Your task to perform on an android device: Go to Amazon Image 0: 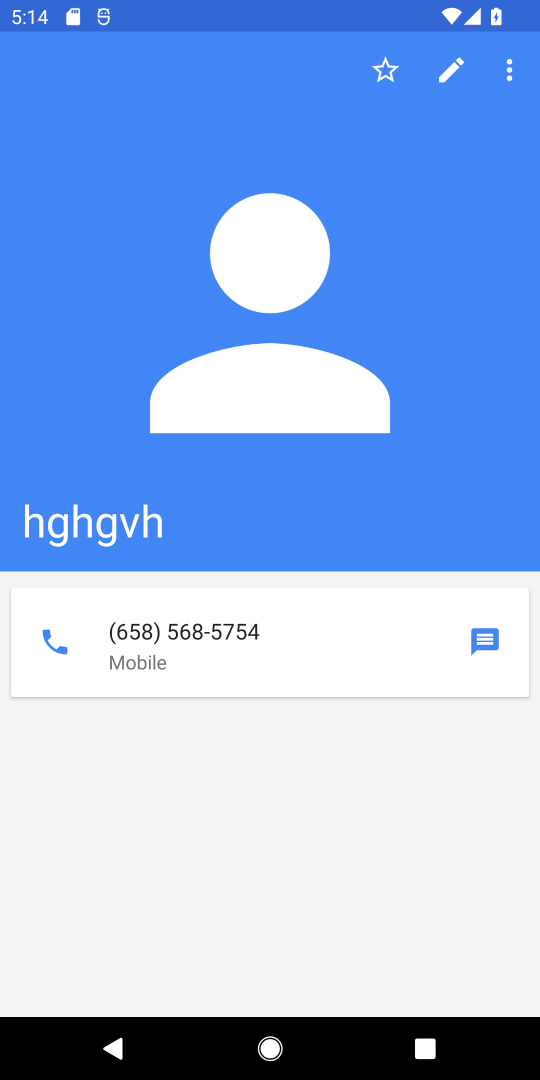
Step 0: press home button
Your task to perform on an android device: Go to Amazon Image 1: 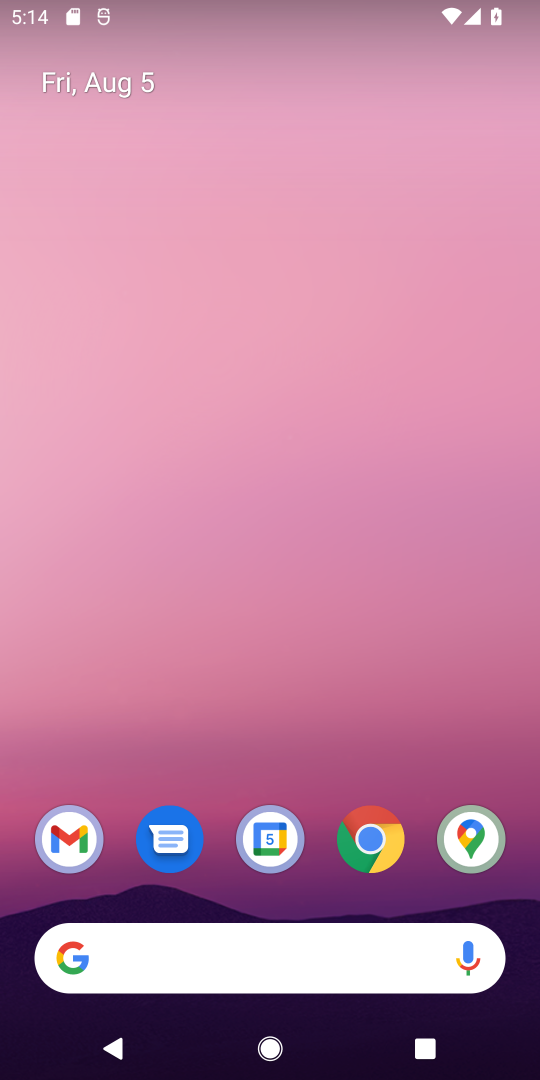
Step 1: click (350, 868)
Your task to perform on an android device: Go to Amazon Image 2: 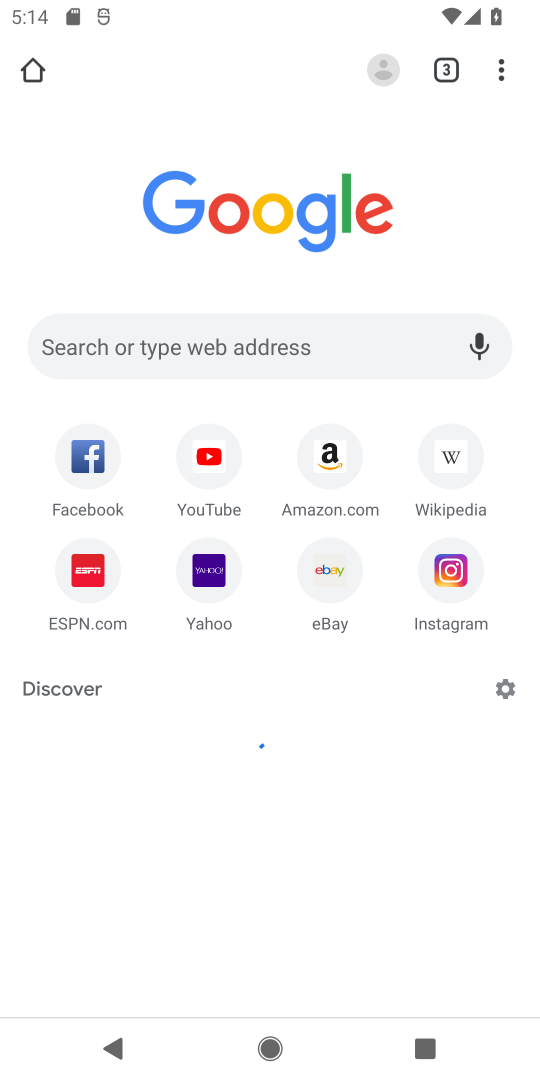
Step 2: click (355, 463)
Your task to perform on an android device: Go to Amazon Image 3: 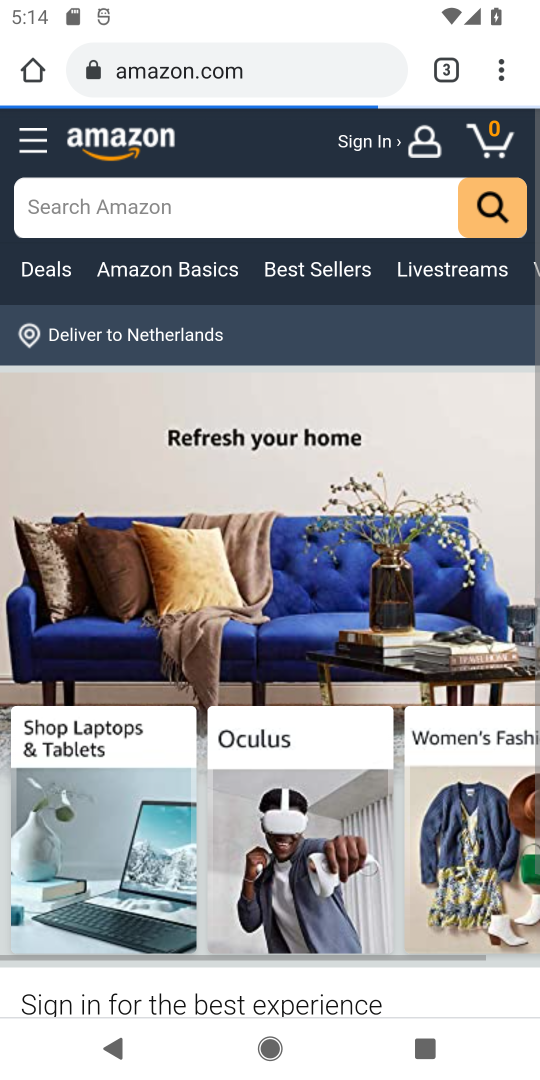
Step 3: task complete